Your task to perform on an android device: turn on the 24-hour format for clock Image 0: 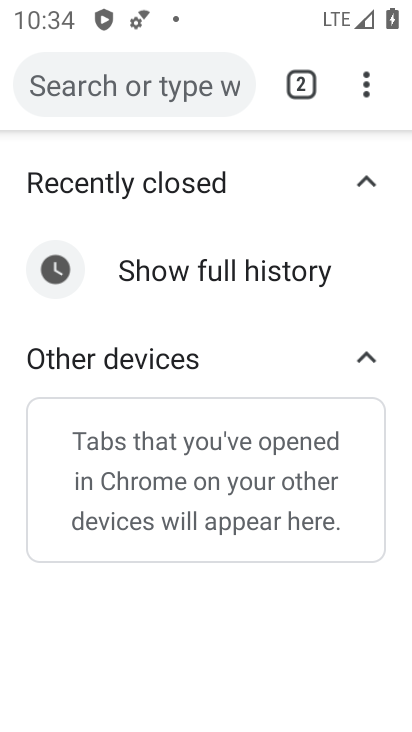
Step 0: press home button
Your task to perform on an android device: turn on the 24-hour format for clock Image 1: 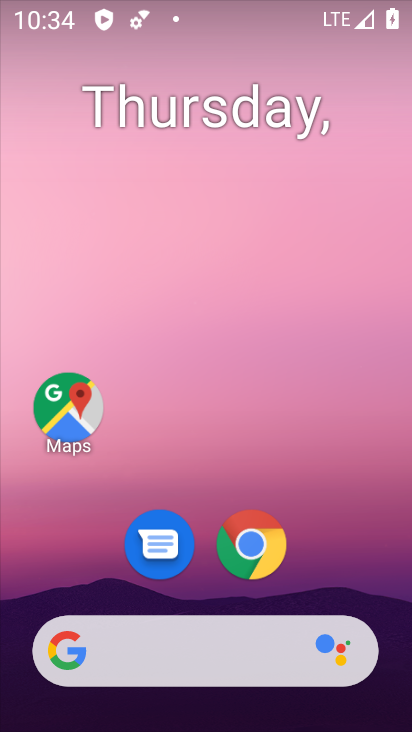
Step 1: drag from (310, 576) to (160, 87)
Your task to perform on an android device: turn on the 24-hour format for clock Image 2: 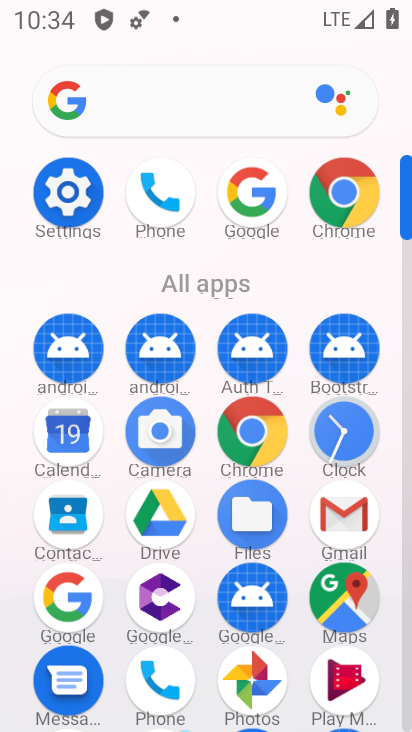
Step 2: drag from (195, 635) to (208, 301)
Your task to perform on an android device: turn on the 24-hour format for clock Image 3: 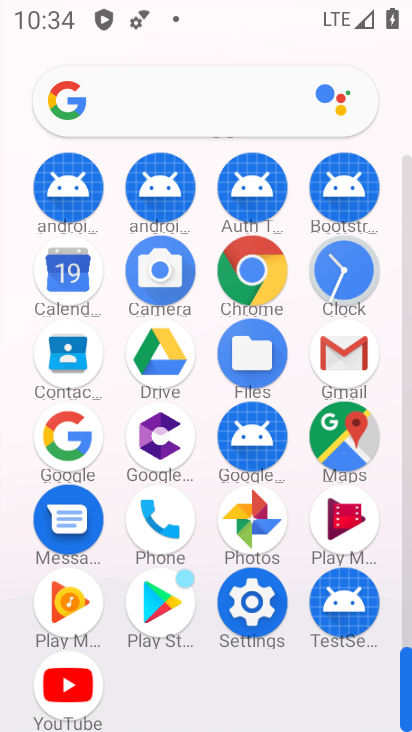
Step 3: click (363, 283)
Your task to perform on an android device: turn on the 24-hour format for clock Image 4: 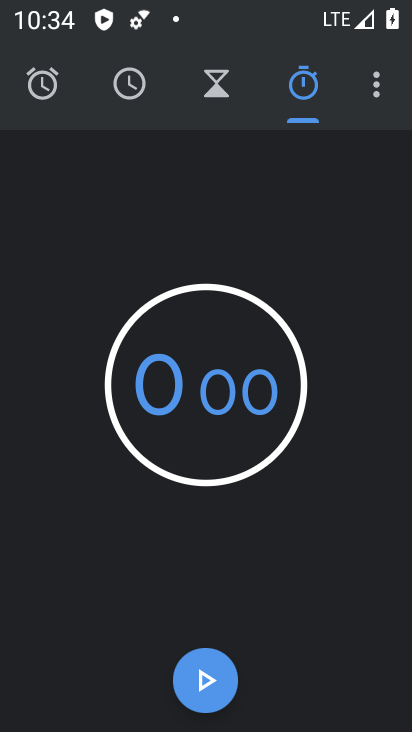
Step 4: click (373, 86)
Your task to perform on an android device: turn on the 24-hour format for clock Image 5: 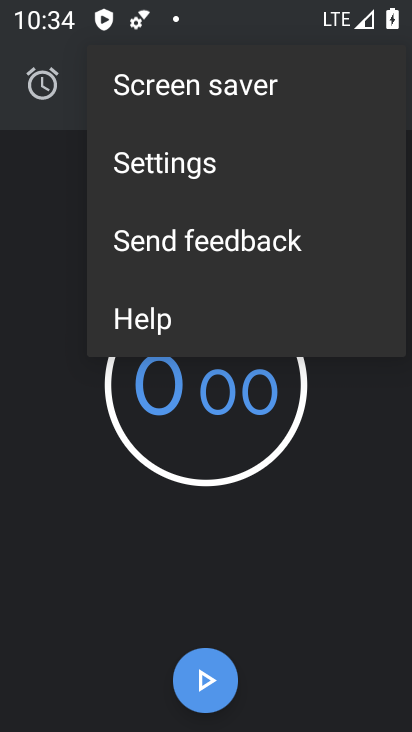
Step 5: click (166, 163)
Your task to perform on an android device: turn on the 24-hour format for clock Image 6: 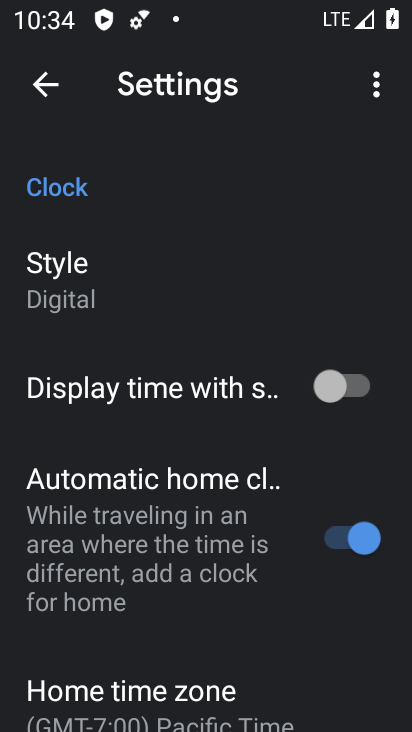
Step 6: drag from (168, 645) to (196, 263)
Your task to perform on an android device: turn on the 24-hour format for clock Image 7: 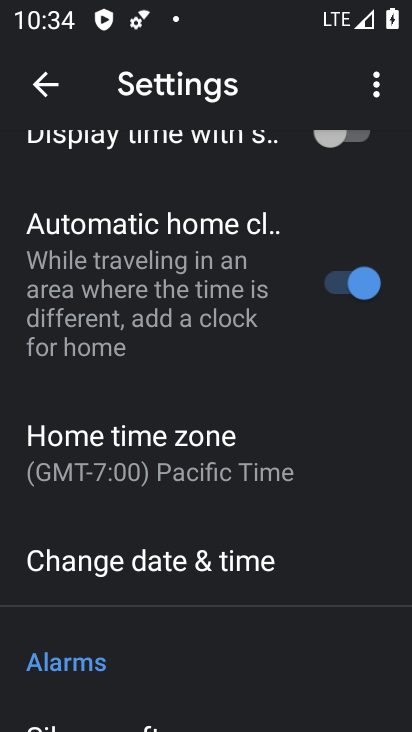
Step 7: click (128, 556)
Your task to perform on an android device: turn on the 24-hour format for clock Image 8: 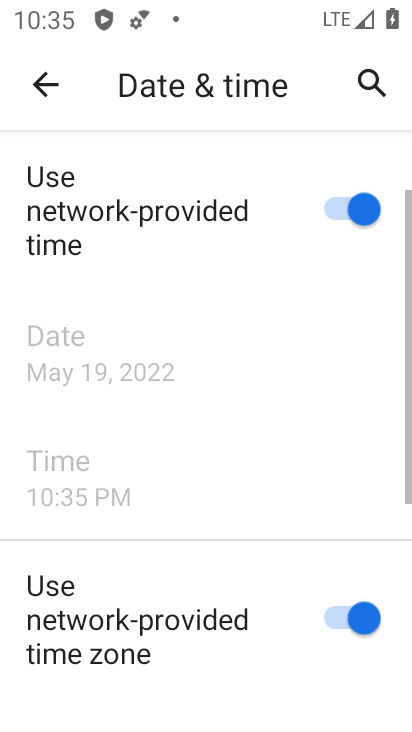
Step 8: drag from (133, 639) to (157, 257)
Your task to perform on an android device: turn on the 24-hour format for clock Image 9: 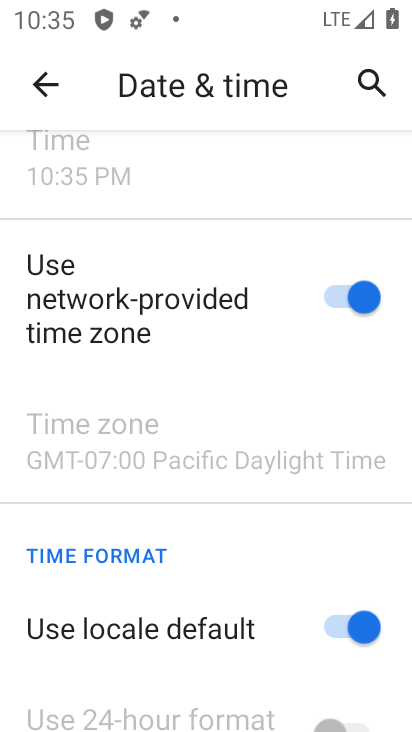
Step 9: drag from (168, 638) to (164, 355)
Your task to perform on an android device: turn on the 24-hour format for clock Image 10: 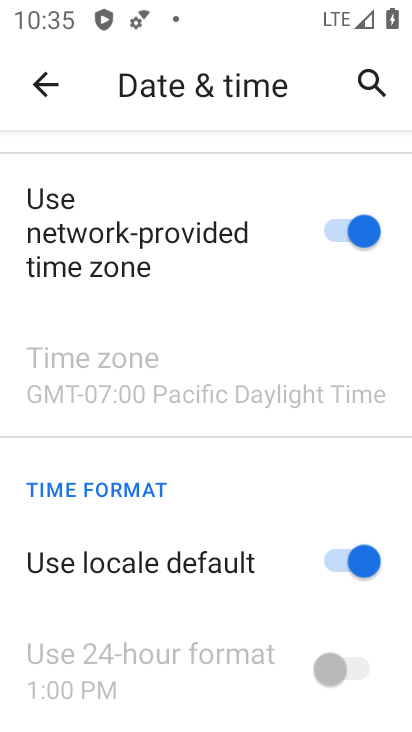
Step 10: click (355, 566)
Your task to perform on an android device: turn on the 24-hour format for clock Image 11: 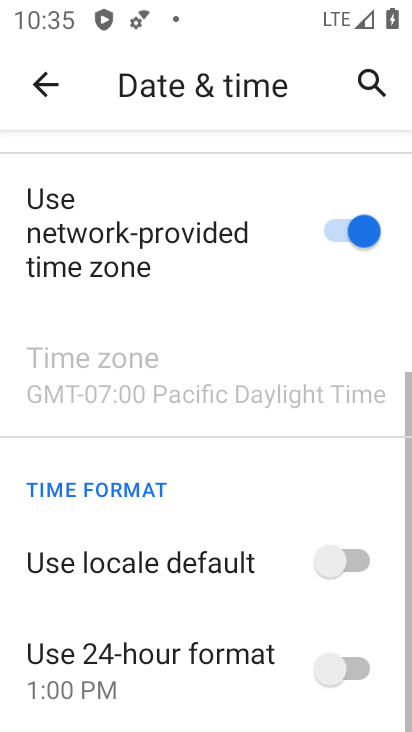
Step 11: click (348, 660)
Your task to perform on an android device: turn on the 24-hour format for clock Image 12: 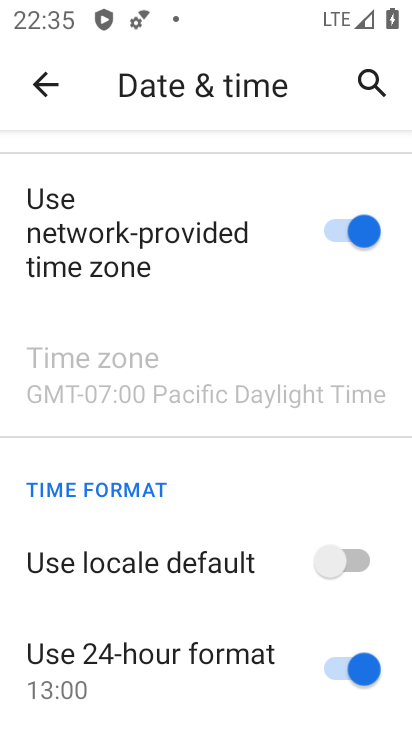
Step 12: task complete